Your task to perform on an android device: search for starred emails in the gmail app Image 0: 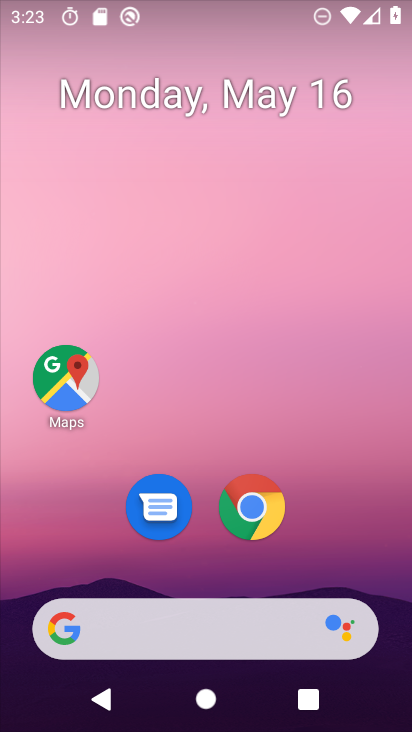
Step 0: drag from (331, 554) to (304, 21)
Your task to perform on an android device: search for starred emails in the gmail app Image 1: 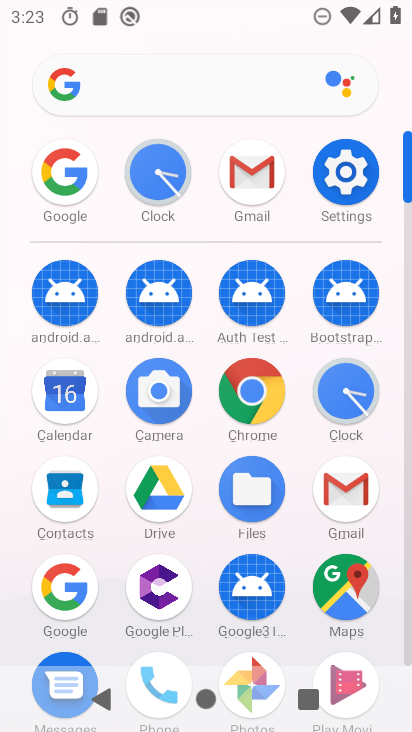
Step 1: click (246, 161)
Your task to perform on an android device: search for starred emails in the gmail app Image 2: 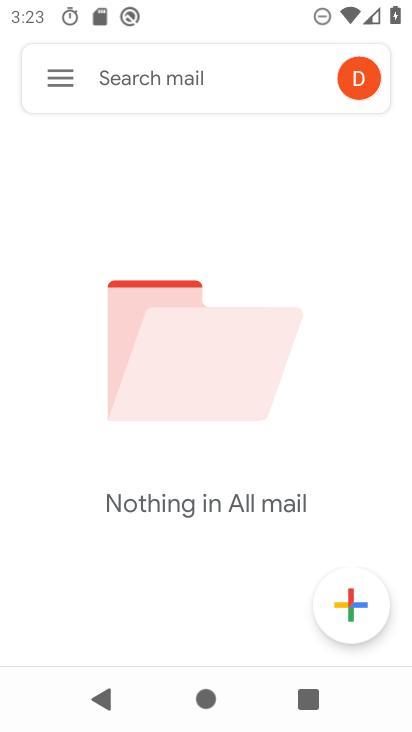
Step 2: click (59, 106)
Your task to perform on an android device: search for starred emails in the gmail app Image 3: 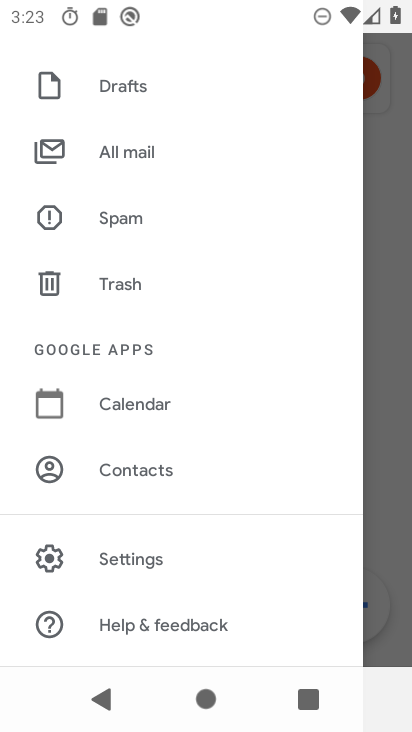
Step 3: drag from (193, 229) to (225, 618)
Your task to perform on an android device: search for starred emails in the gmail app Image 4: 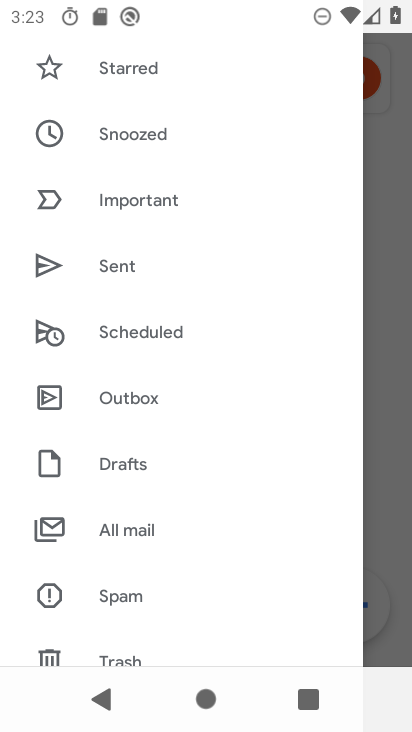
Step 4: click (125, 73)
Your task to perform on an android device: search for starred emails in the gmail app Image 5: 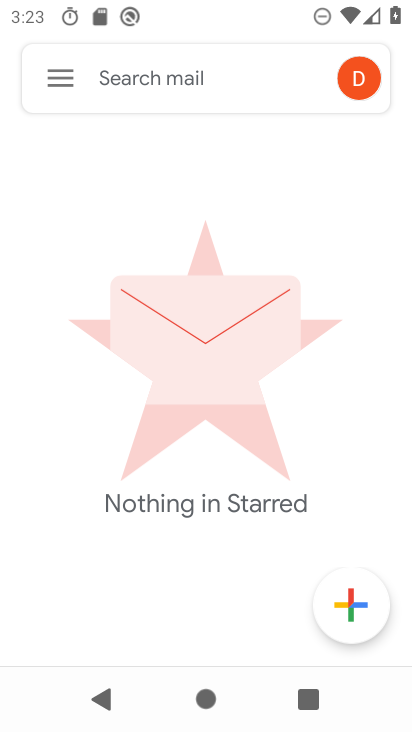
Step 5: task complete